Your task to perform on an android device: Open Google Chrome and open the bookmarks view Image 0: 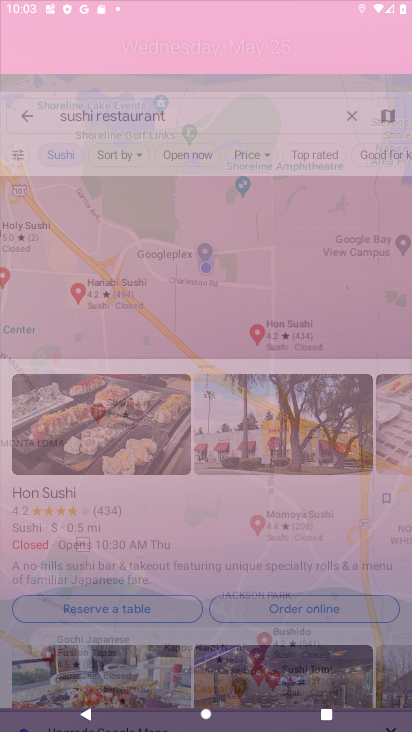
Step 0: click (253, 0)
Your task to perform on an android device: Open Google Chrome and open the bookmarks view Image 1: 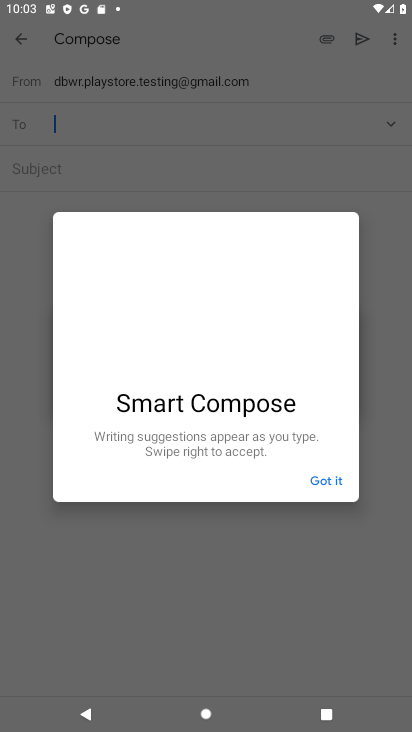
Step 1: press home button
Your task to perform on an android device: Open Google Chrome and open the bookmarks view Image 2: 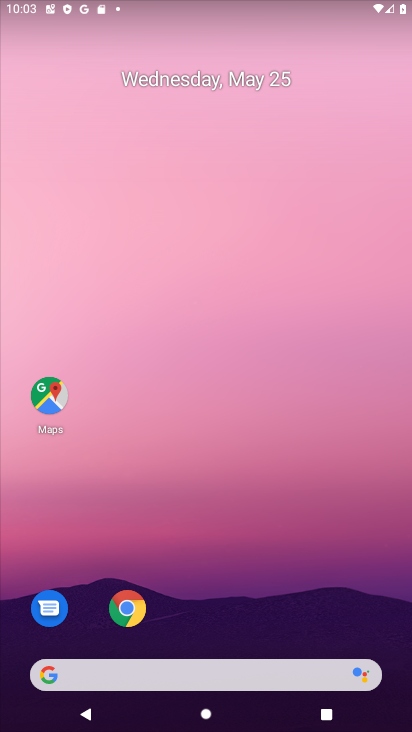
Step 2: click (137, 612)
Your task to perform on an android device: Open Google Chrome and open the bookmarks view Image 3: 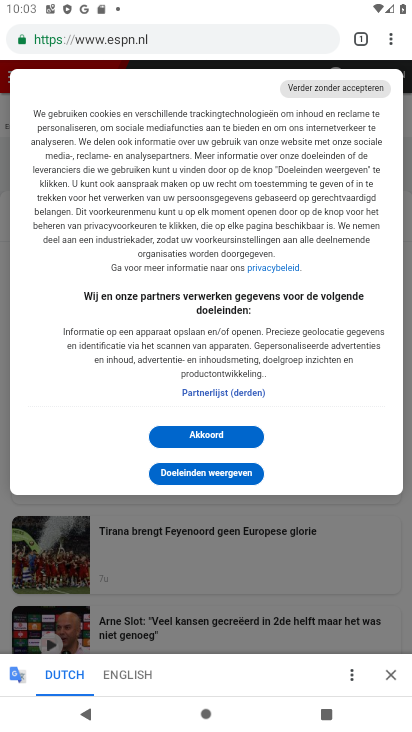
Step 3: click (391, 43)
Your task to perform on an android device: Open Google Chrome and open the bookmarks view Image 4: 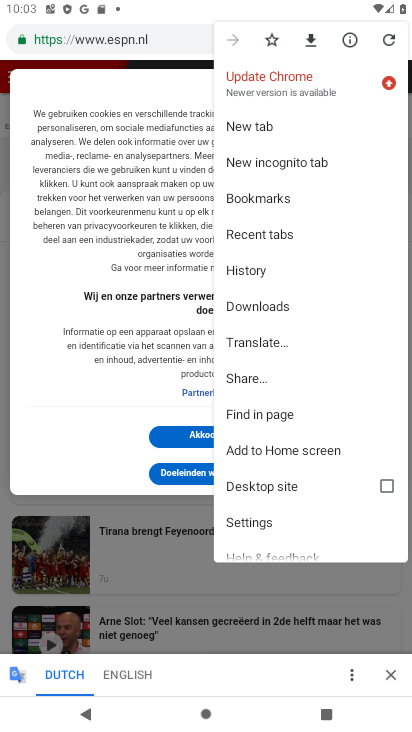
Step 4: click (253, 198)
Your task to perform on an android device: Open Google Chrome and open the bookmarks view Image 5: 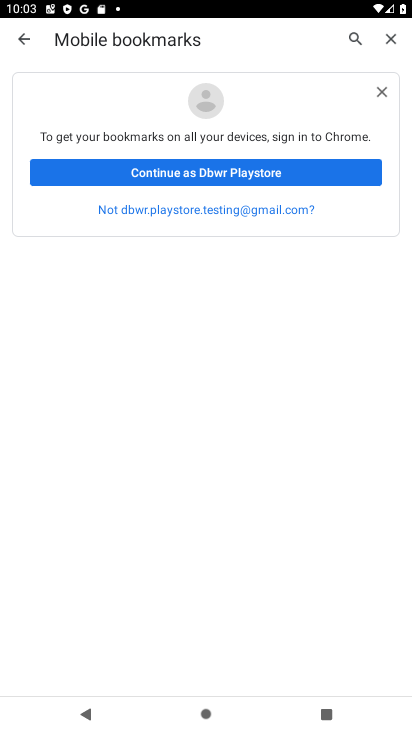
Step 5: click (205, 172)
Your task to perform on an android device: Open Google Chrome and open the bookmarks view Image 6: 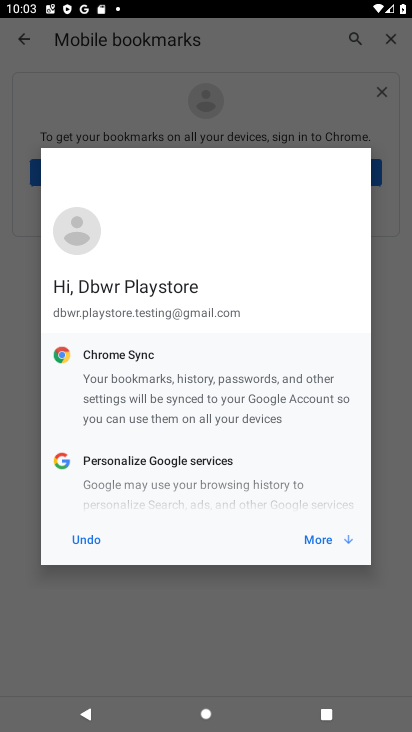
Step 6: click (321, 539)
Your task to perform on an android device: Open Google Chrome and open the bookmarks view Image 7: 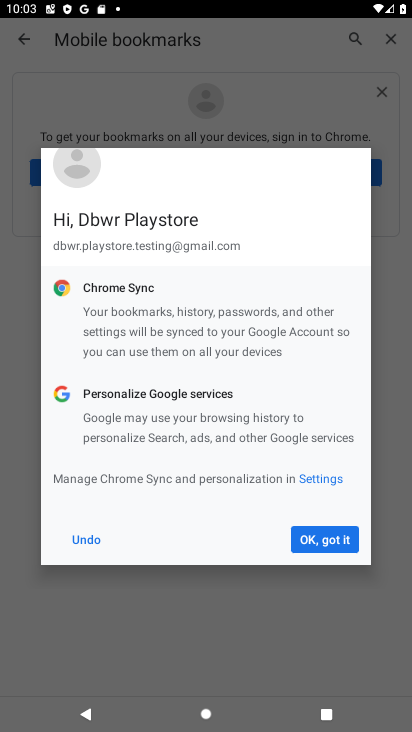
Step 7: click (321, 539)
Your task to perform on an android device: Open Google Chrome and open the bookmarks view Image 8: 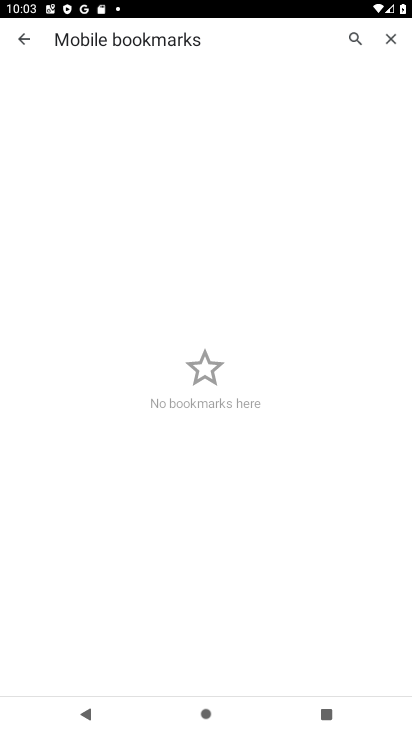
Step 8: task complete